Your task to perform on an android device: open wifi settings Image 0: 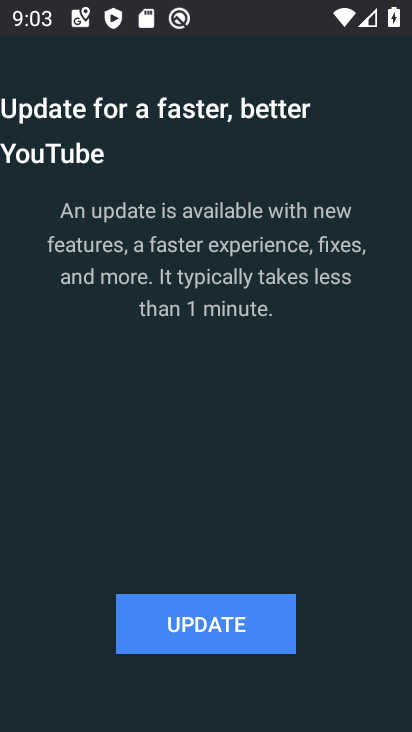
Step 0: press home button
Your task to perform on an android device: open wifi settings Image 1: 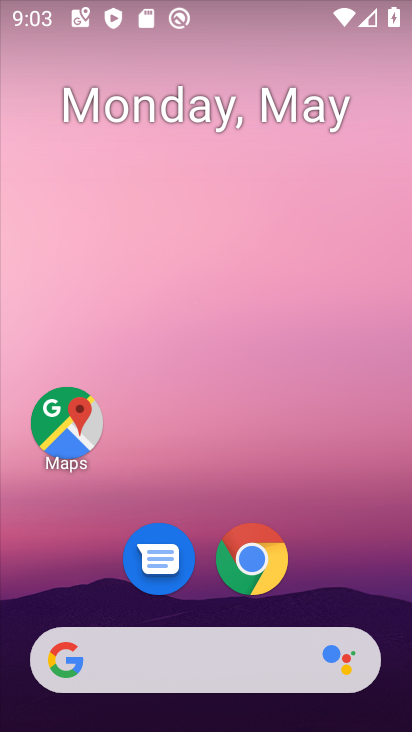
Step 1: drag from (271, 276) to (237, 146)
Your task to perform on an android device: open wifi settings Image 2: 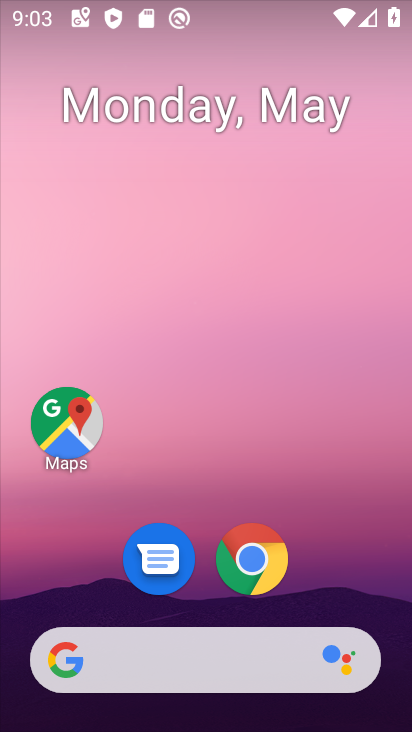
Step 2: drag from (209, 471) to (165, 91)
Your task to perform on an android device: open wifi settings Image 3: 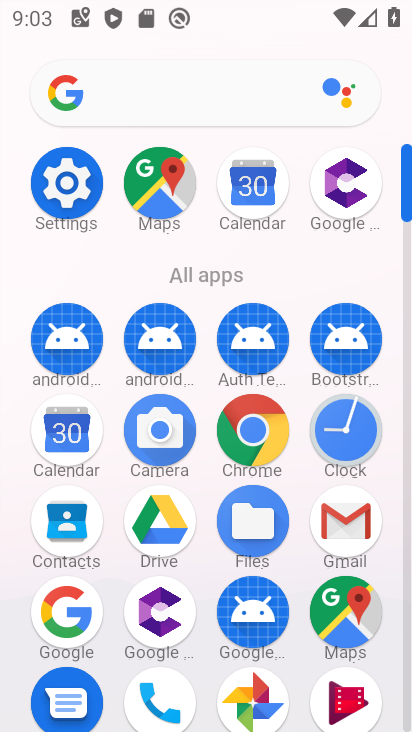
Step 3: click (70, 184)
Your task to perform on an android device: open wifi settings Image 4: 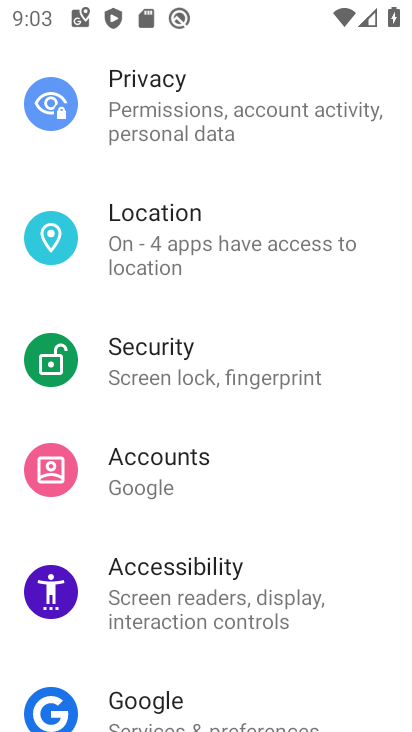
Step 4: drag from (193, 177) to (169, 542)
Your task to perform on an android device: open wifi settings Image 5: 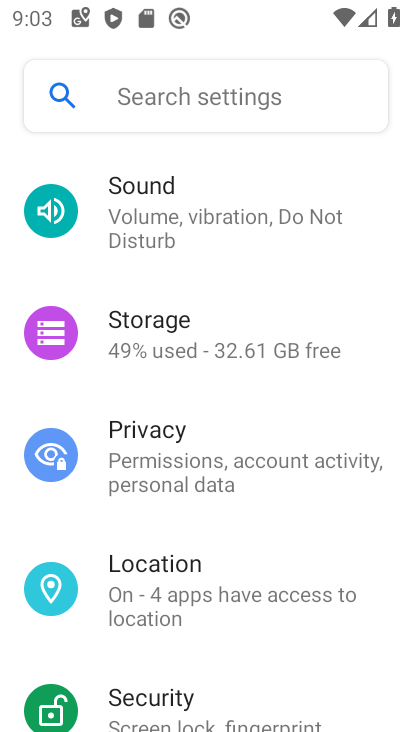
Step 5: drag from (133, 262) to (153, 635)
Your task to perform on an android device: open wifi settings Image 6: 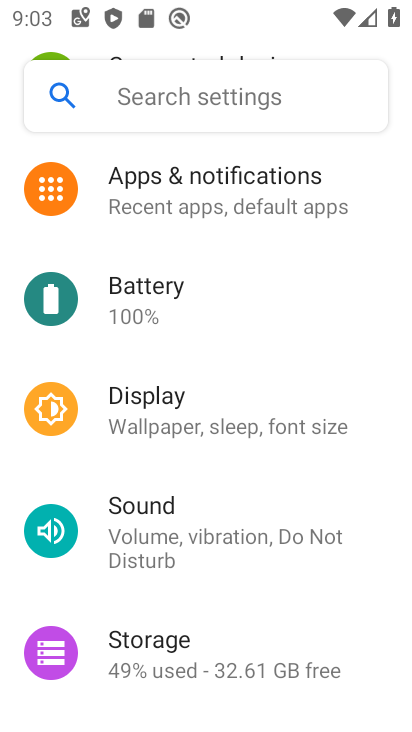
Step 6: drag from (140, 254) to (266, 691)
Your task to perform on an android device: open wifi settings Image 7: 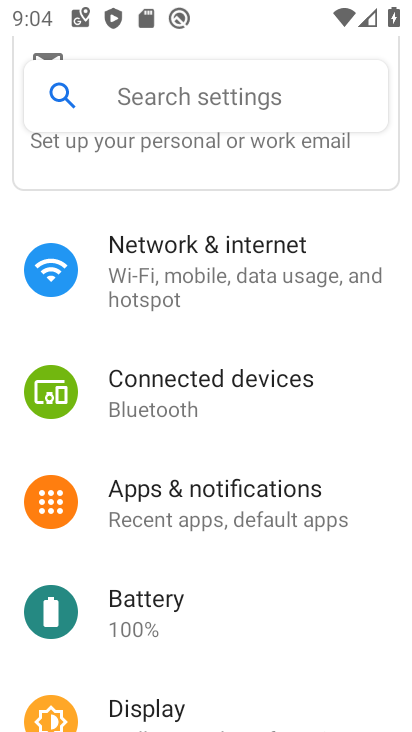
Step 7: click (172, 244)
Your task to perform on an android device: open wifi settings Image 8: 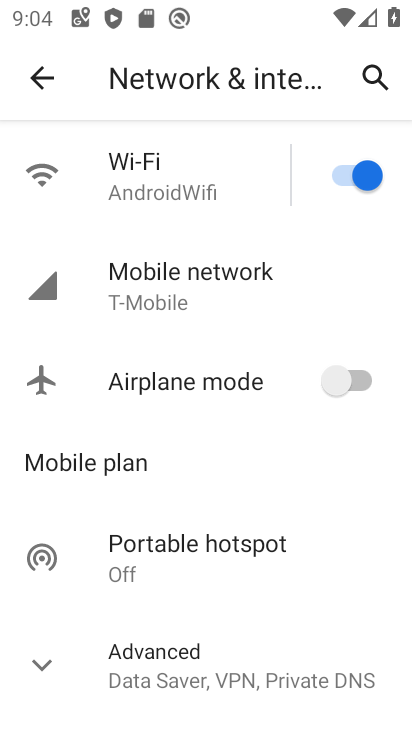
Step 8: click (160, 177)
Your task to perform on an android device: open wifi settings Image 9: 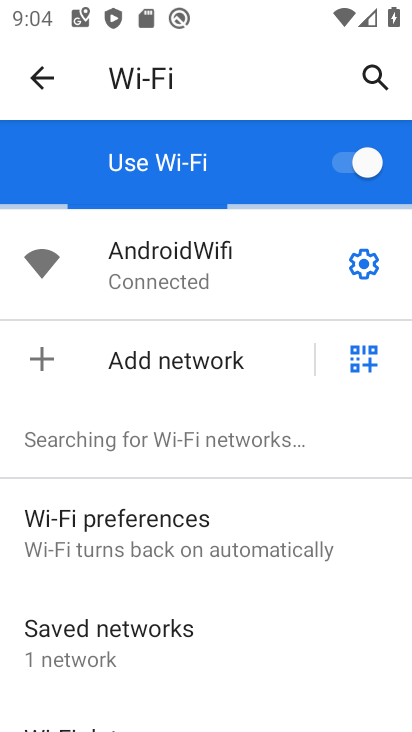
Step 9: task complete